Your task to perform on an android device: turn off improve location accuracy Image 0: 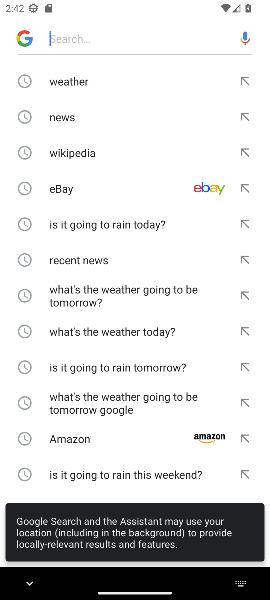
Step 0: press back button
Your task to perform on an android device: turn off improve location accuracy Image 1: 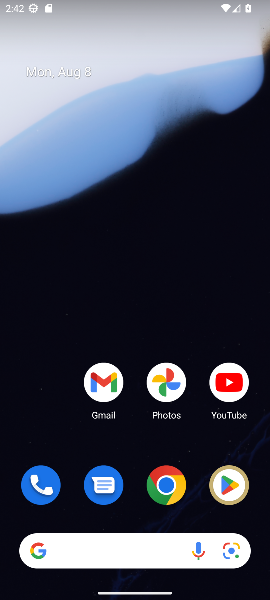
Step 1: drag from (117, 146) to (117, 100)
Your task to perform on an android device: turn off improve location accuracy Image 2: 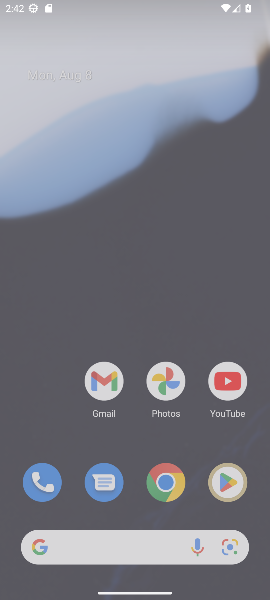
Step 2: drag from (128, 35) to (262, 362)
Your task to perform on an android device: turn off improve location accuracy Image 3: 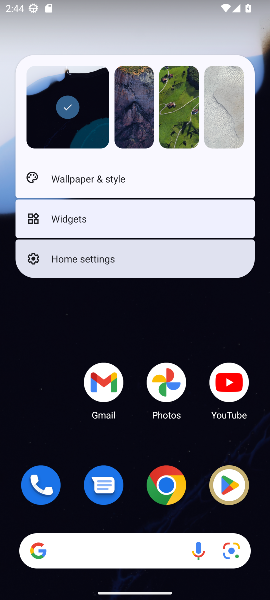
Step 3: drag from (157, 496) to (106, 165)
Your task to perform on an android device: turn off improve location accuracy Image 4: 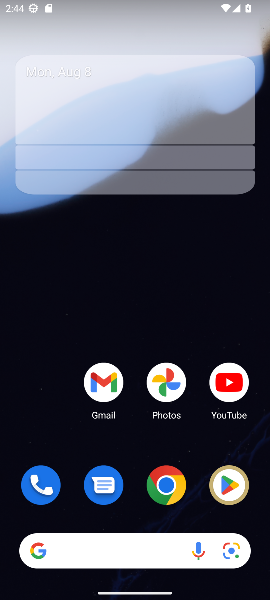
Step 4: drag from (160, 440) to (160, 72)
Your task to perform on an android device: turn off improve location accuracy Image 5: 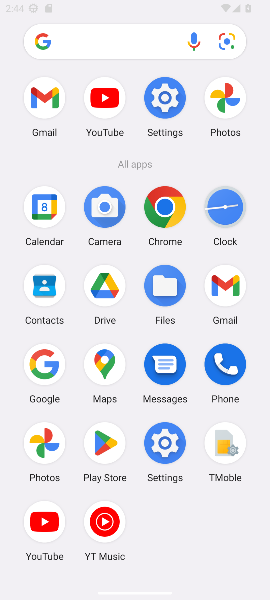
Step 5: drag from (183, 298) to (158, 58)
Your task to perform on an android device: turn off improve location accuracy Image 6: 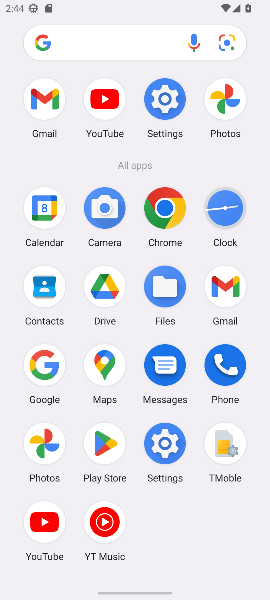
Step 6: drag from (158, 405) to (110, 38)
Your task to perform on an android device: turn off improve location accuracy Image 7: 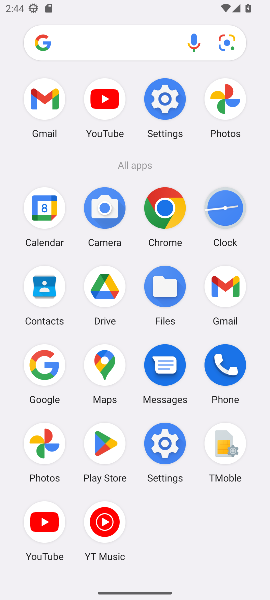
Step 7: click (163, 104)
Your task to perform on an android device: turn off improve location accuracy Image 8: 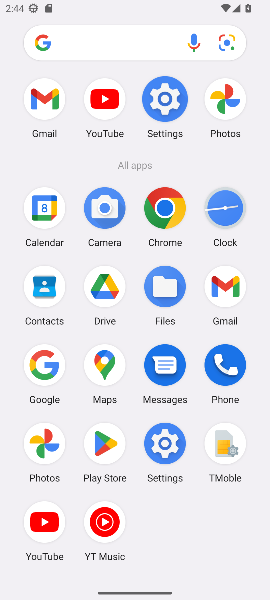
Step 8: click (163, 104)
Your task to perform on an android device: turn off improve location accuracy Image 9: 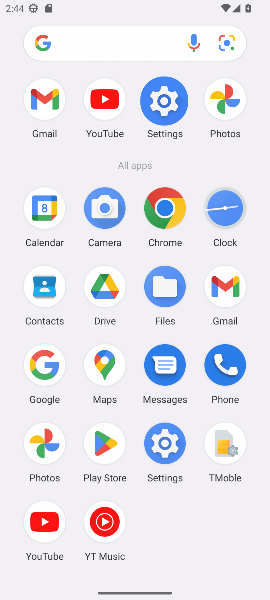
Step 9: click (163, 104)
Your task to perform on an android device: turn off improve location accuracy Image 10: 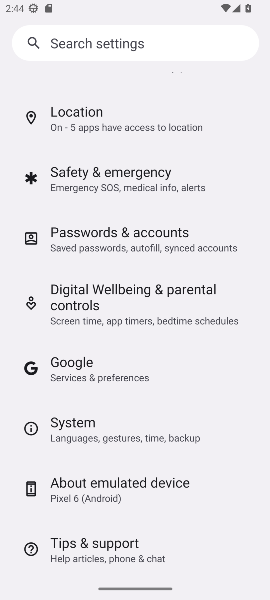
Step 10: click (163, 104)
Your task to perform on an android device: turn off improve location accuracy Image 11: 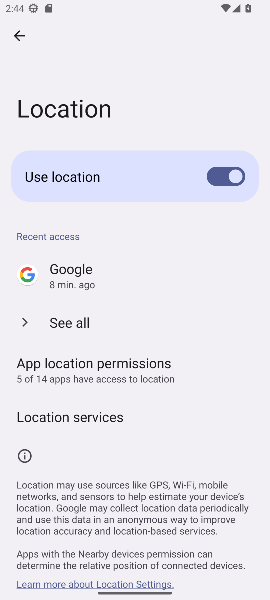
Step 11: click (93, 128)
Your task to perform on an android device: turn off improve location accuracy Image 12: 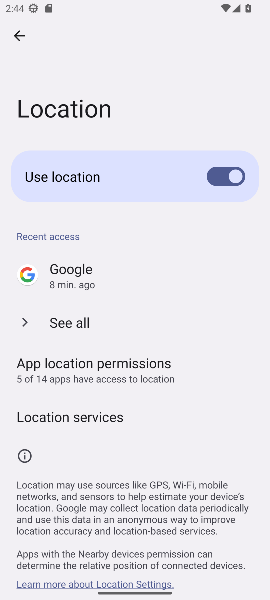
Step 12: click (69, 407)
Your task to perform on an android device: turn off improve location accuracy Image 13: 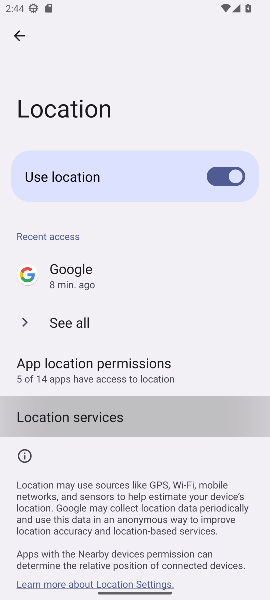
Step 13: click (69, 412)
Your task to perform on an android device: turn off improve location accuracy Image 14: 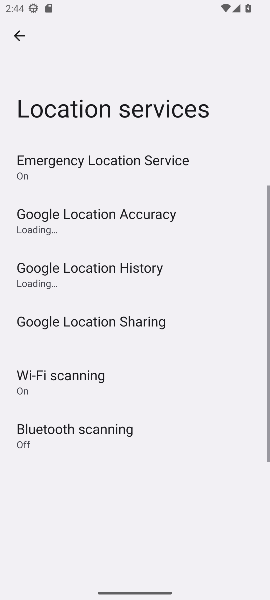
Step 14: click (69, 412)
Your task to perform on an android device: turn off improve location accuracy Image 15: 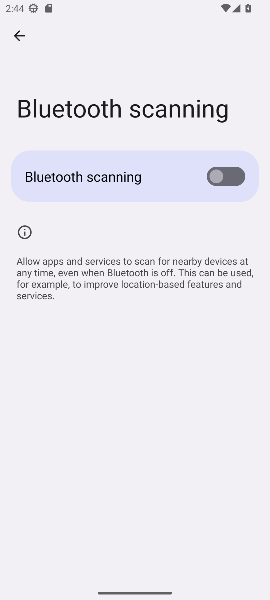
Step 15: click (135, 215)
Your task to perform on an android device: turn off improve location accuracy Image 16: 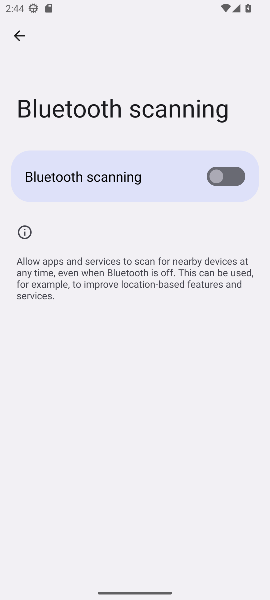
Step 16: click (135, 215)
Your task to perform on an android device: turn off improve location accuracy Image 17: 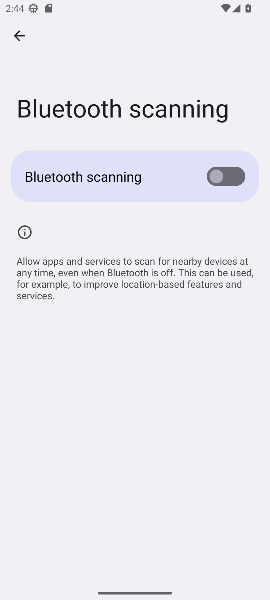
Step 17: click (16, 33)
Your task to perform on an android device: turn off improve location accuracy Image 18: 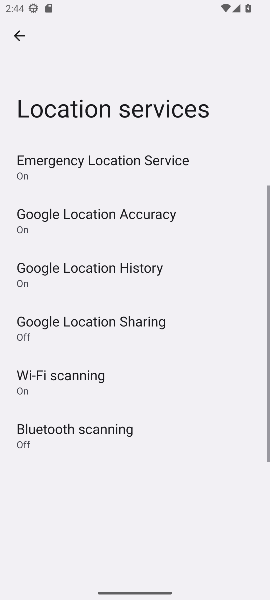
Step 18: click (126, 210)
Your task to perform on an android device: turn off improve location accuracy Image 19: 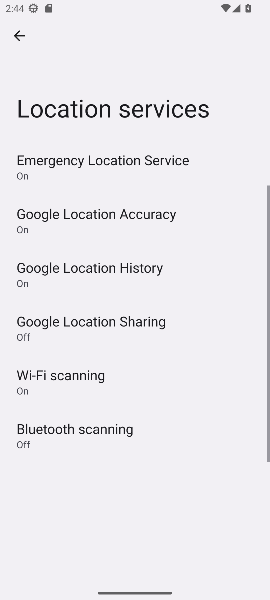
Step 19: click (126, 210)
Your task to perform on an android device: turn off improve location accuracy Image 20: 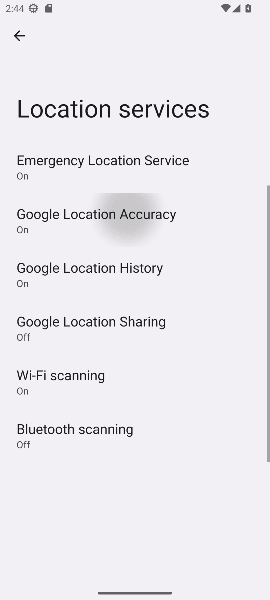
Step 20: click (126, 210)
Your task to perform on an android device: turn off improve location accuracy Image 21: 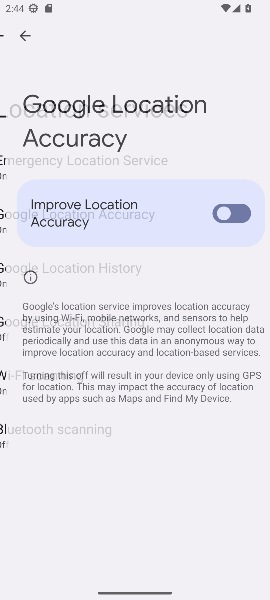
Step 21: click (126, 213)
Your task to perform on an android device: turn off improve location accuracy Image 22: 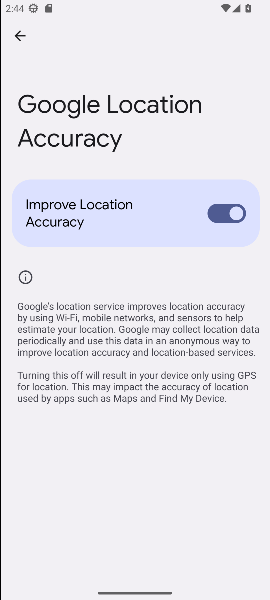
Step 22: click (126, 213)
Your task to perform on an android device: turn off improve location accuracy Image 23: 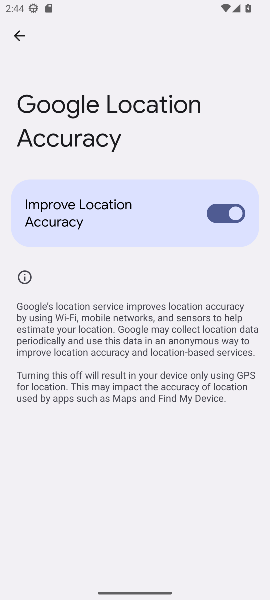
Step 23: click (227, 209)
Your task to perform on an android device: turn off improve location accuracy Image 24: 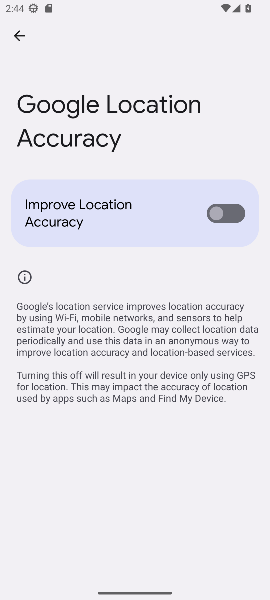
Step 24: task complete